Your task to perform on an android device: turn off priority inbox in the gmail app Image 0: 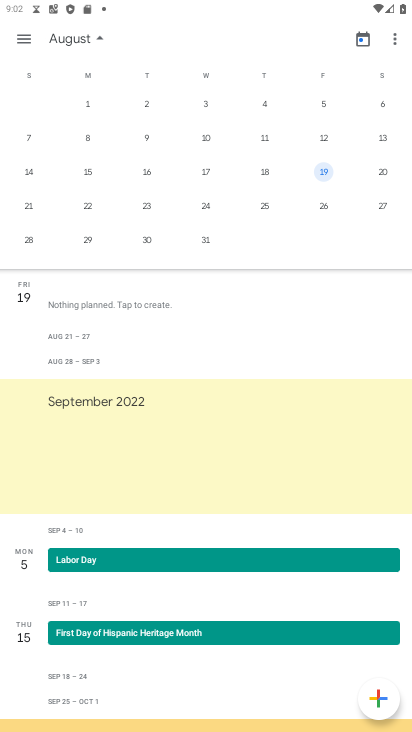
Step 0: click (24, 37)
Your task to perform on an android device: turn off priority inbox in the gmail app Image 1: 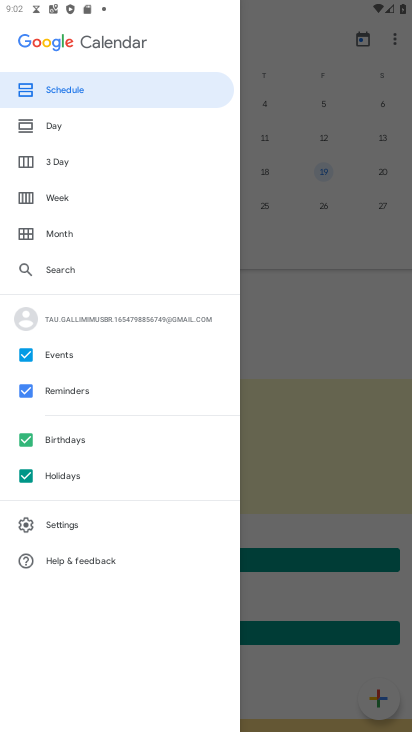
Step 1: click (67, 529)
Your task to perform on an android device: turn off priority inbox in the gmail app Image 2: 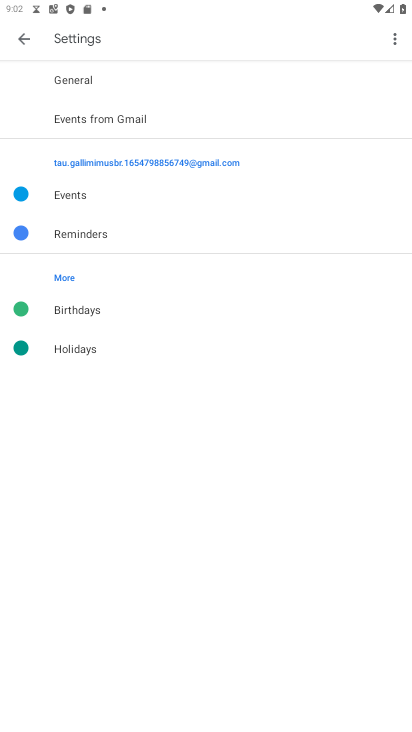
Step 2: press home button
Your task to perform on an android device: turn off priority inbox in the gmail app Image 3: 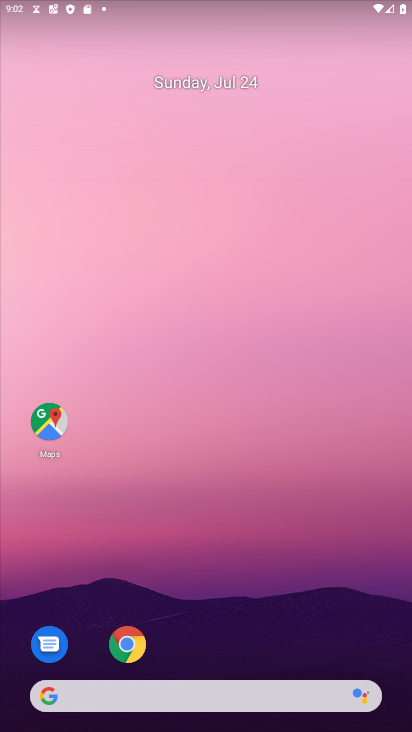
Step 3: drag from (239, 638) to (248, 11)
Your task to perform on an android device: turn off priority inbox in the gmail app Image 4: 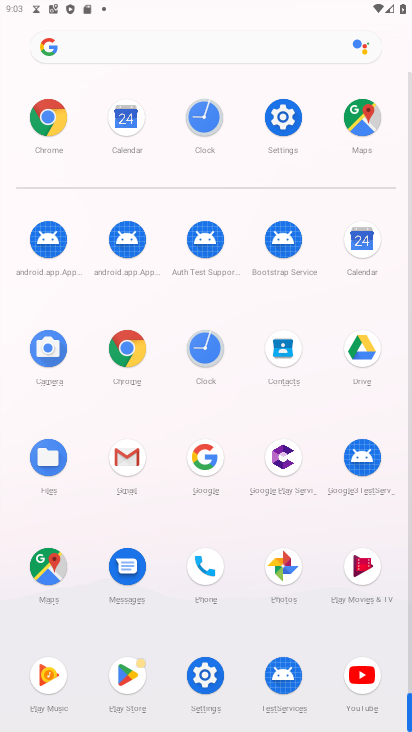
Step 4: click (129, 459)
Your task to perform on an android device: turn off priority inbox in the gmail app Image 5: 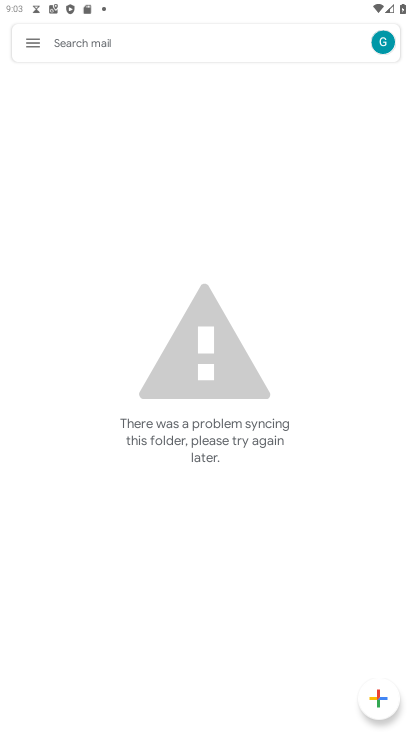
Step 5: click (23, 47)
Your task to perform on an android device: turn off priority inbox in the gmail app Image 6: 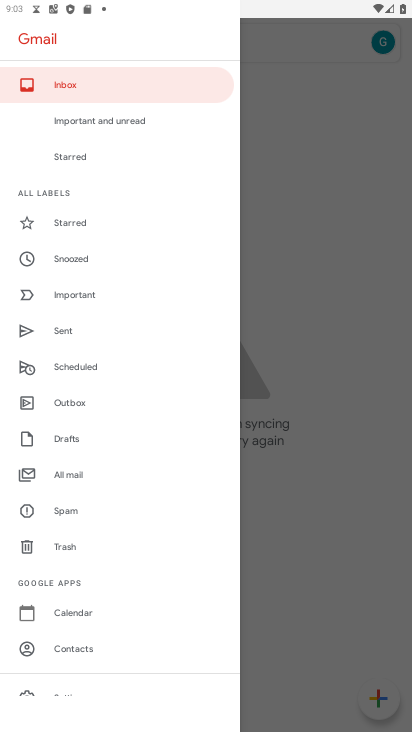
Step 6: drag from (133, 650) to (129, 263)
Your task to perform on an android device: turn off priority inbox in the gmail app Image 7: 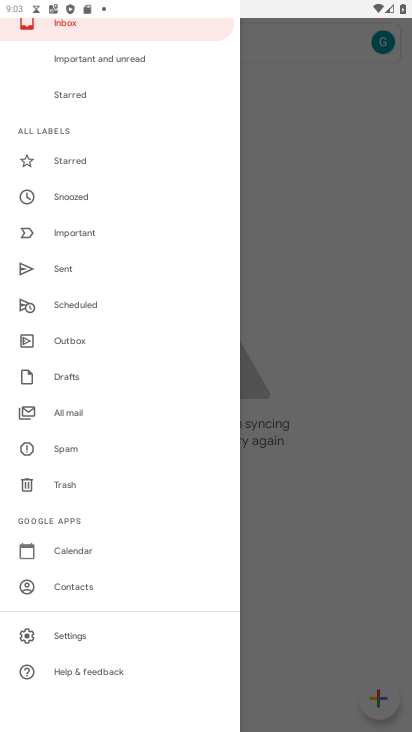
Step 7: click (61, 624)
Your task to perform on an android device: turn off priority inbox in the gmail app Image 8: 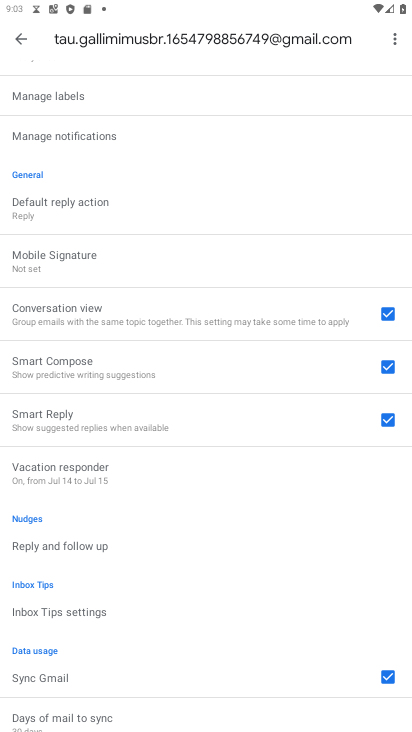
Step 8: drag from (138, 588) to (148, 189)
Your task to perform on an android device: turn off priority inbox in the gmail app Image 9: 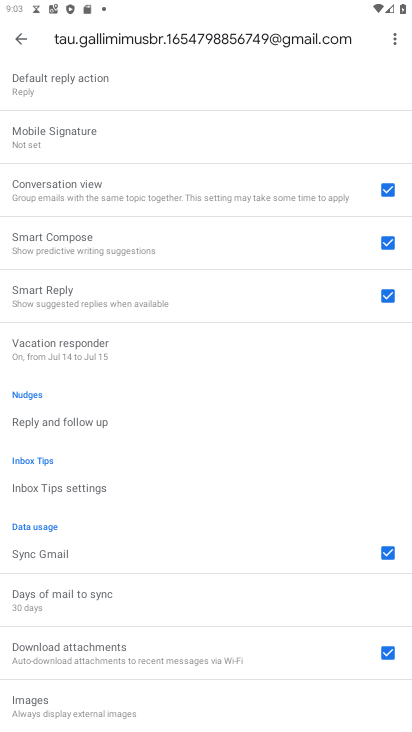
Step 9: drag from (120, 100) to (133, 540)
Your task to perform on an android device: turn off priority inbox in the gmail app Image 10: 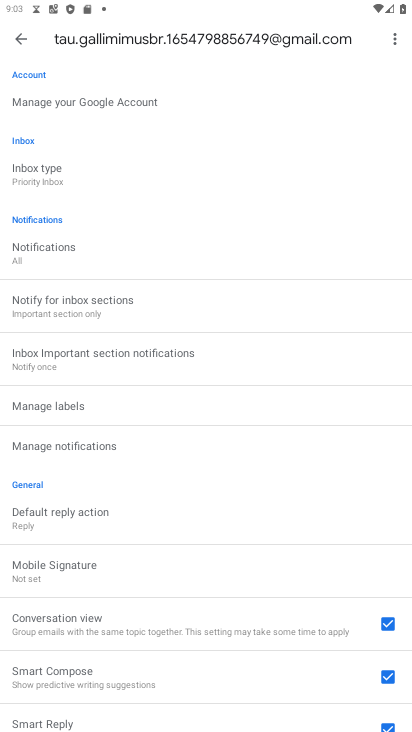
Step 10: click (43, 167)
Your task to perform on an android device: turn off priority inbox in the gmail app Image 11: 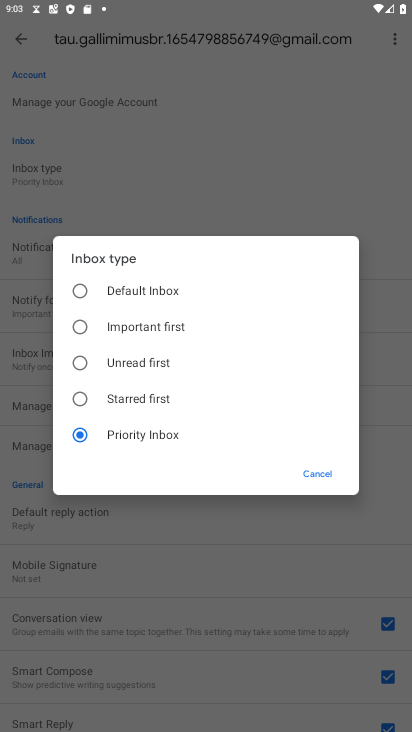
Step 11: click (136, 291)
Your task to perform on an android device: turn off priority inbox in the gmail app Image 12: 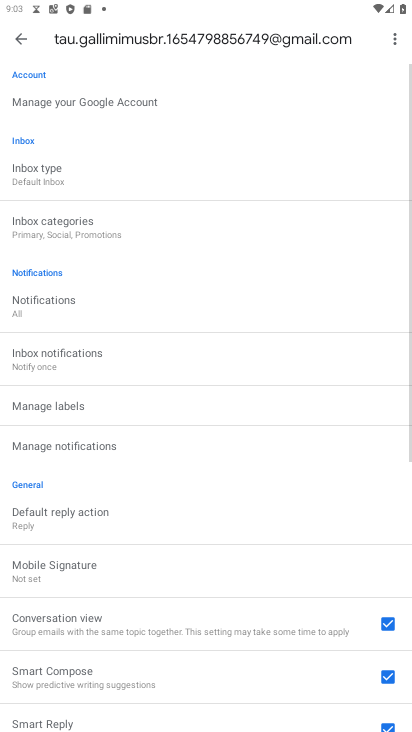
Step 12: task complete